Your task to perform on an android device: Search for good Chinese restaurants Image 0: 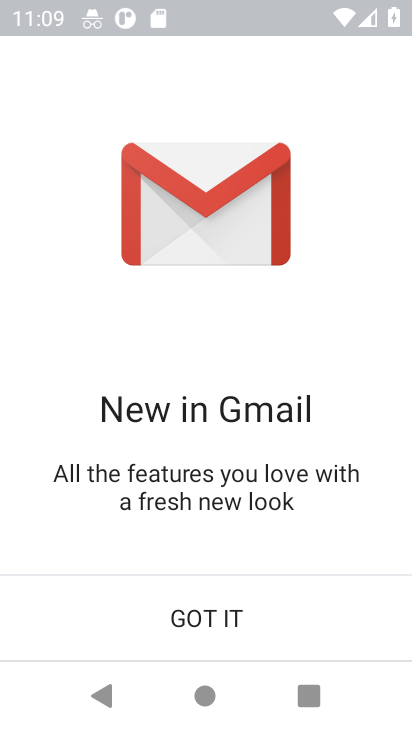
Step 0: press home button
Your task to perform on an android device: Search for good Chinese restaurants Image 1: 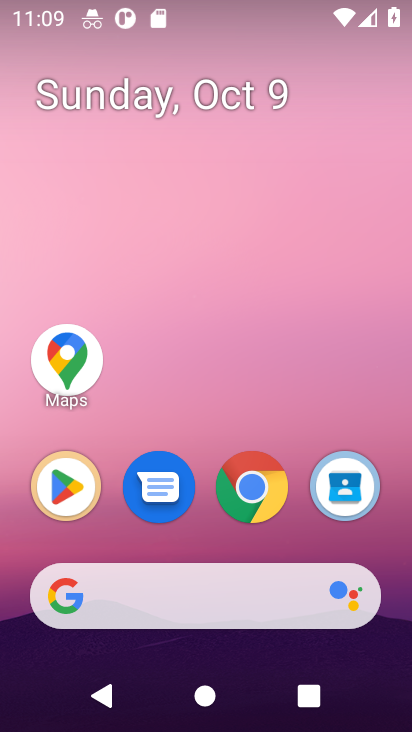
Step 1: click (272, 477)
Your task to perform on an android device: Search for good Chinese restaurants Image 2: 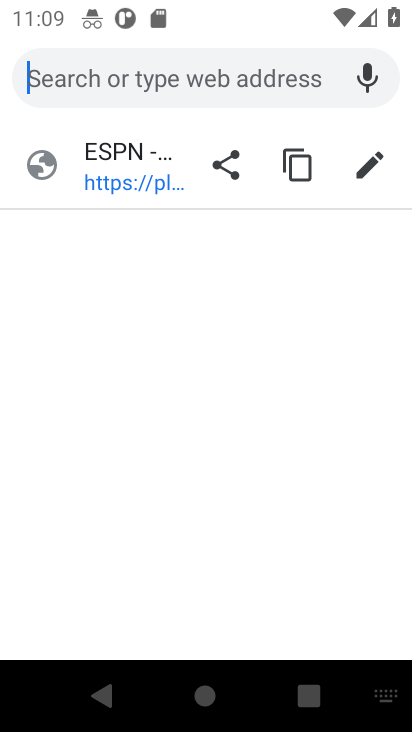
Step 2: type "good chinese restaurants"
Your task to perform on an android device: Search for good Chinese restaurants Image 3: 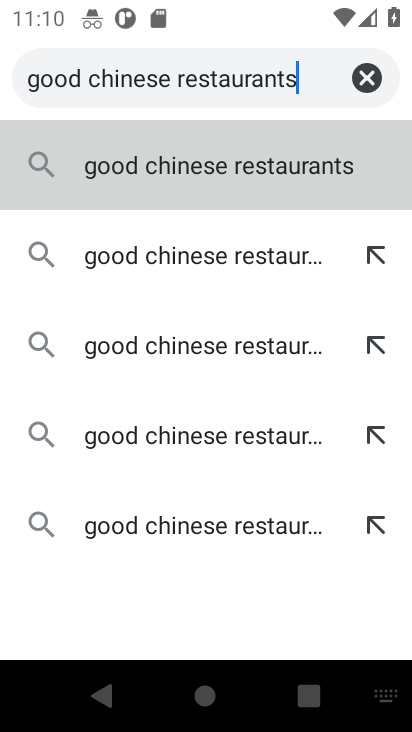
Step 3: press enter
Your task to perform on an android device: Search for good Chinese restaurants Image 4: 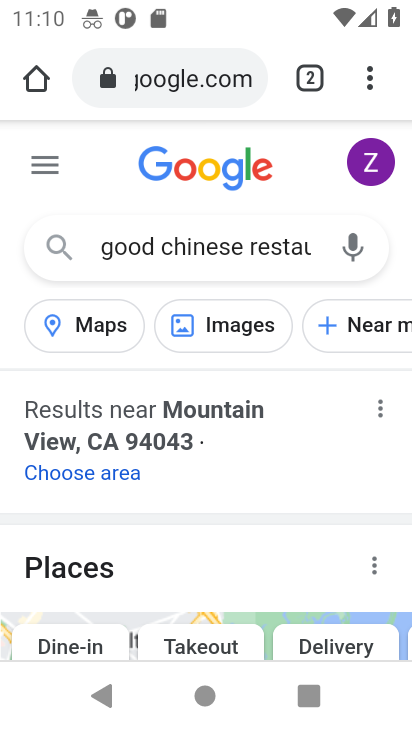
Step 4: drag from (308, 432) to (325, 239)
Your task to perform on an android device: Search for good Chinese restaurants Image 5: 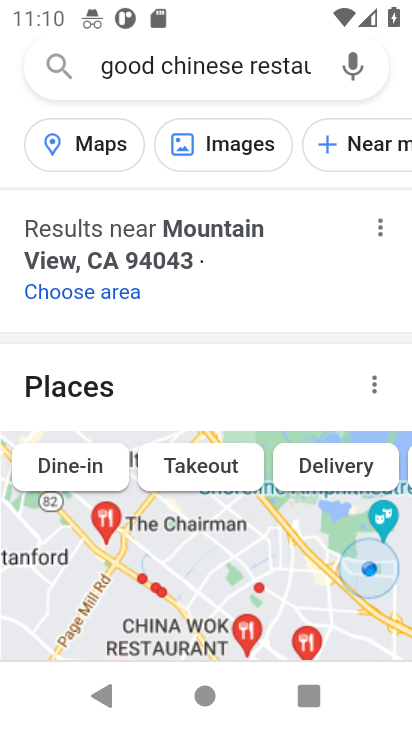
Step 5: drag from (280, 476) to (249, 101)
Your task to perform on an android device: Search for good Chinese restaurants Image 6: 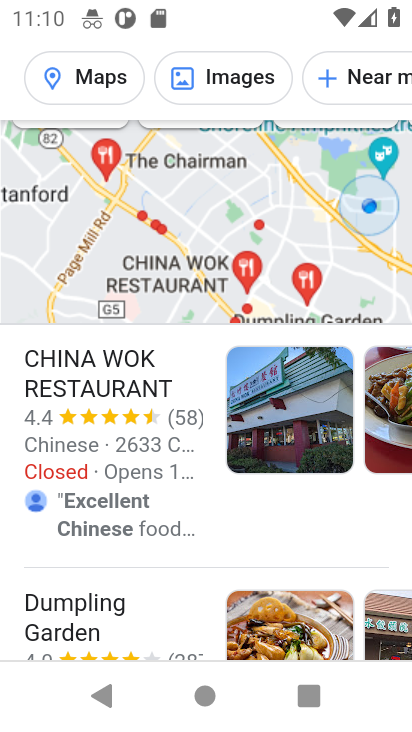
Step 6: drag from (173, 557) to (182, 260)
Your task to perform on an android device: Search for good Chinese restaurants Image 7: 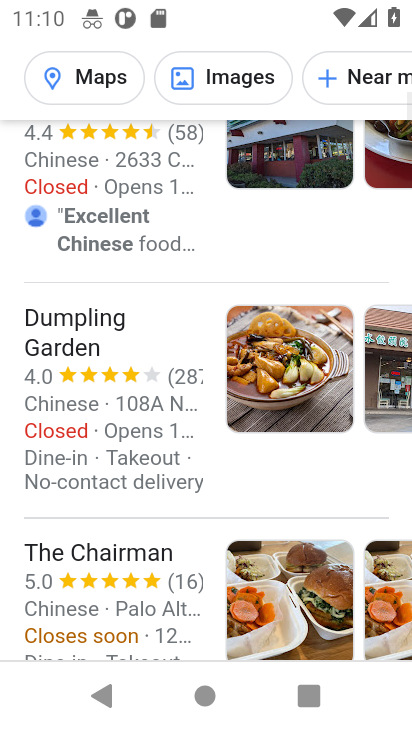
Step 7: drag from (218, 562) to (252, 183)
Your task to perform on an android device: Search for good Chinese restaurants Image 8: 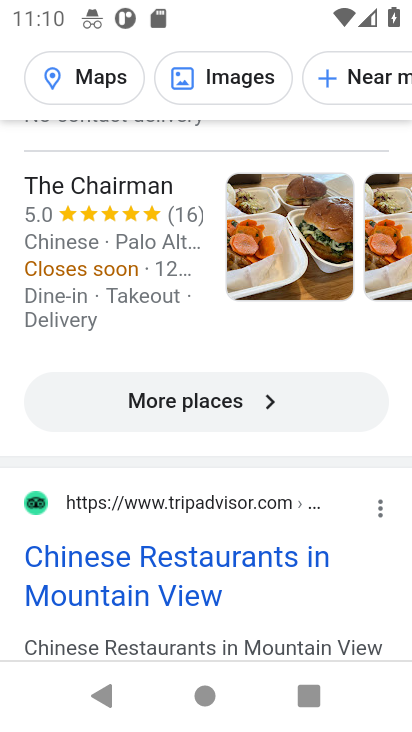
Step 8: click (237, 398)
Your task to perform on an android device: Search for good Chinese restaurants Image 9: 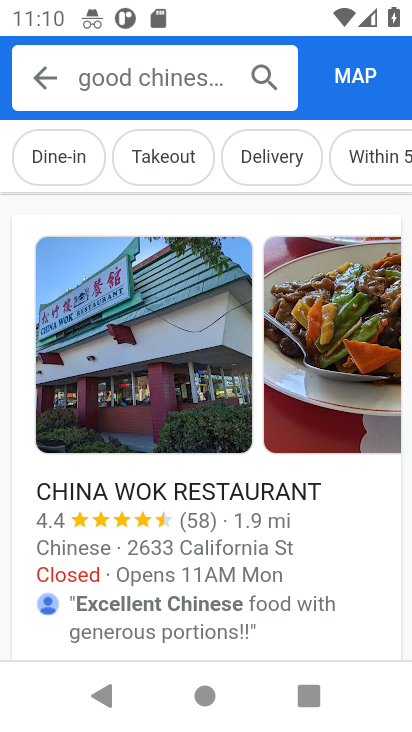
Step 9: task complete